Your task to perform on an android device: toggle improve location accuracy Image 0: 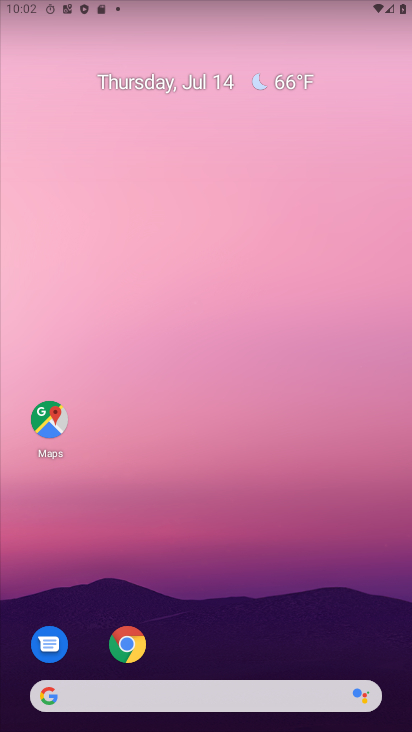
Step 0: drag from (258, 599) to (213, 289)
Your task to perform on an android device: toggle improve location accuracy Image 1: 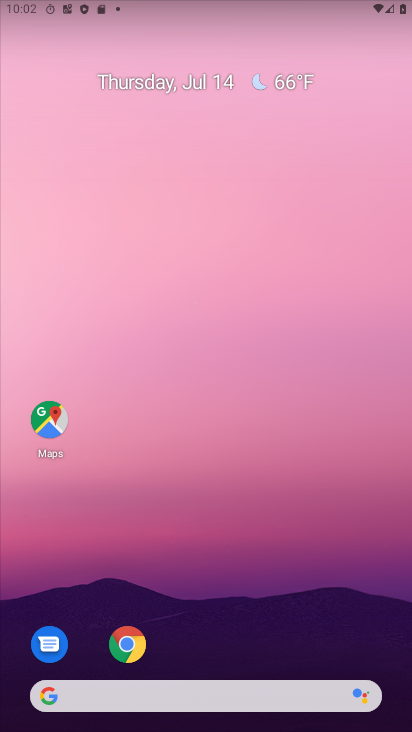
Step 1: drag from (270, 634) to (243, 168)
Your task to perform on an android device: toggle improve location accuracy Image 2: 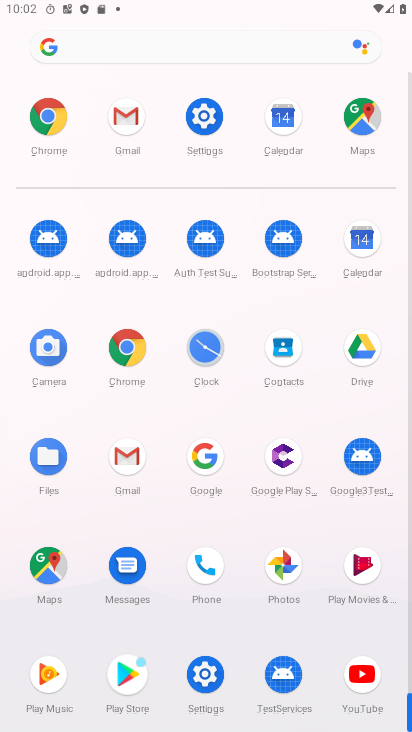
Step 2: click (202, 133)
Your task to perform on an android device: toggle improve location accuracy Image 3: 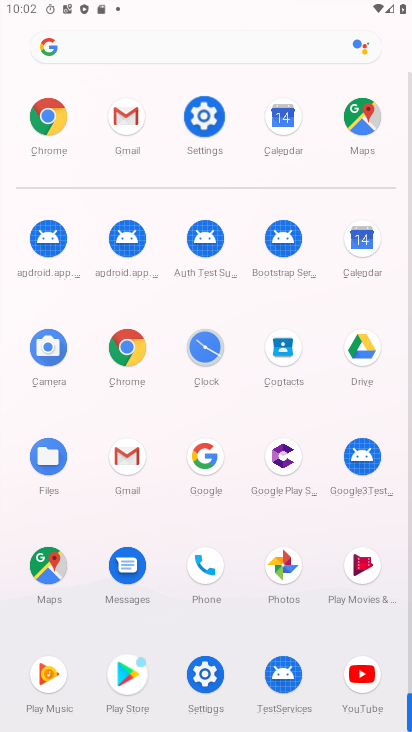
Step 3: click (203, 131)
Your task to perform on an android device: toggle improve location accuracy Image 4: 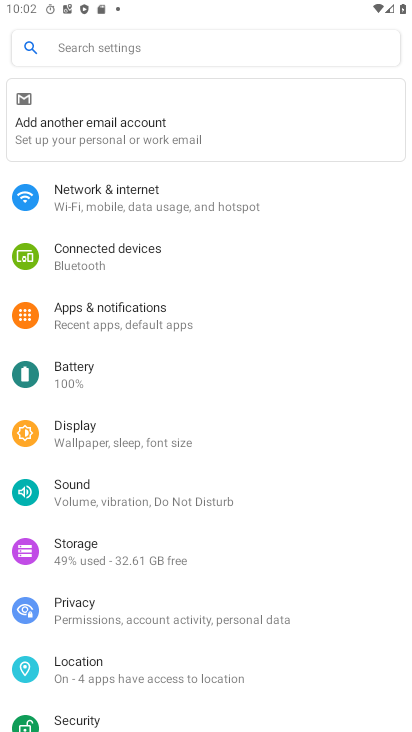
Step 4: click (96, 662)
Your task to perform on an android device: toggle improve location accuracy Image 5: 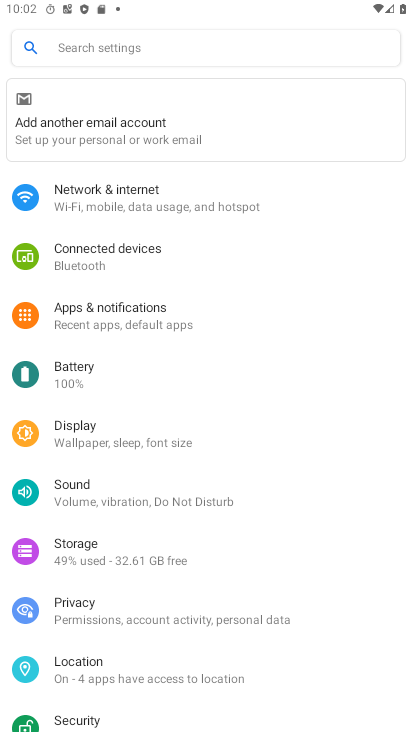
Step 5: click (93, 658)
Your task to perform on an android device: toggle improve location accuracy Image 6: 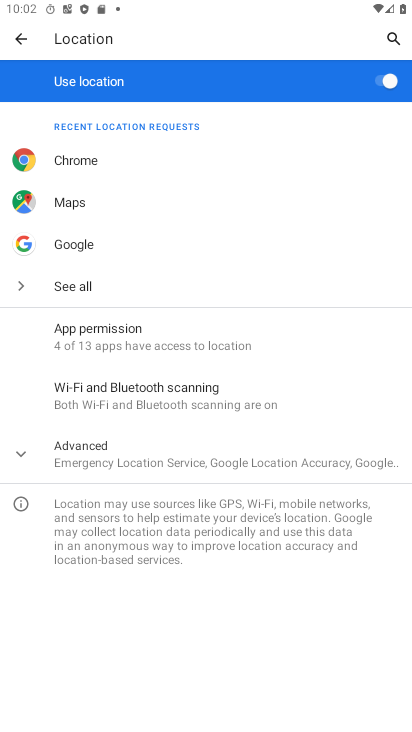
Step 6: click (96, 454)
Your task to perform on an android device: toggle improve location accuracy Image 7: 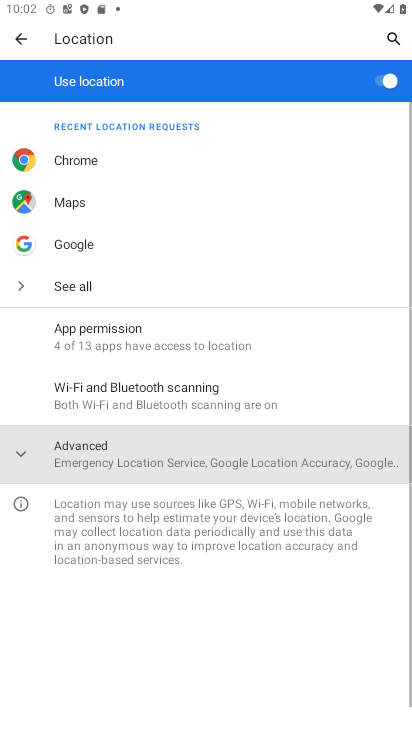
Step 7: click (96, 453)
Your task to perform on an android device: toggle improve location accuracy Image 8: 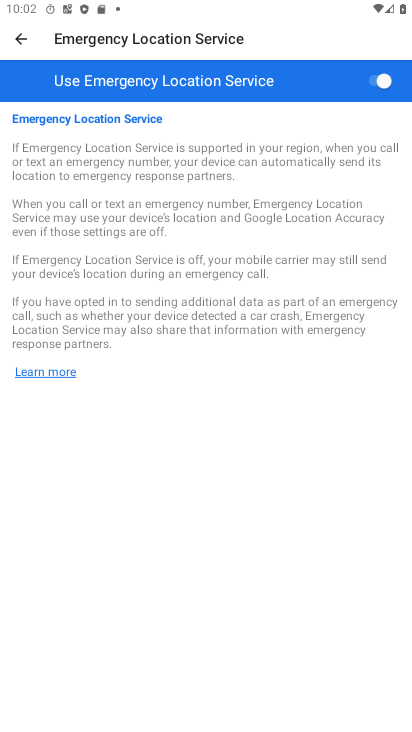
Step 8: click (13, 21)
Your task to perform on an android device: toggle improve location accuracy Image 9: 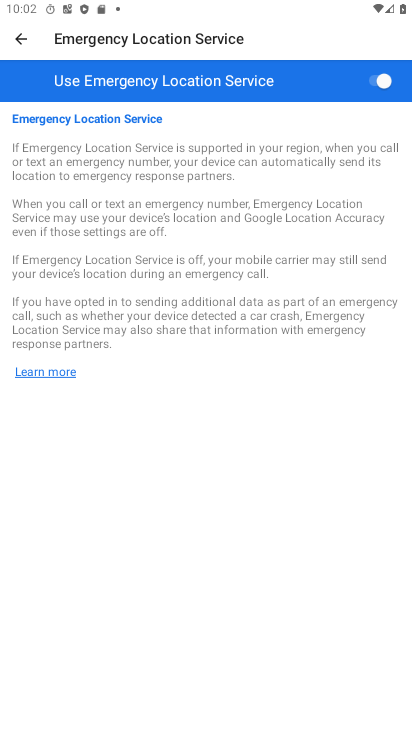
Step 9: click (22, 47)
Your task to perform on an android device: toggle improve location accuracy Image 10: 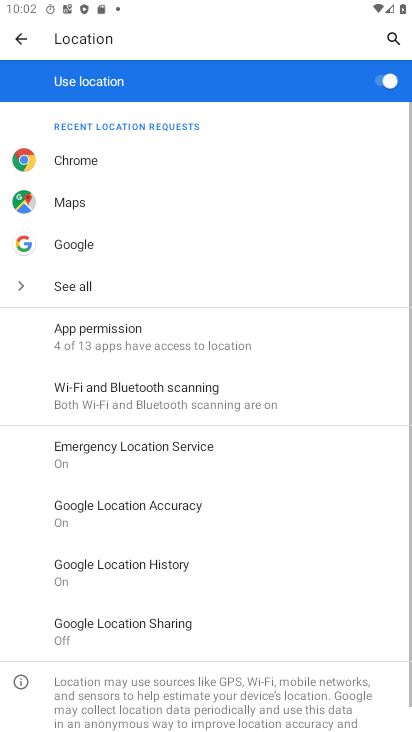
Step 10: click (131, 505)
Your task to perform on an android device: toggle improve location accuracy Image 11: 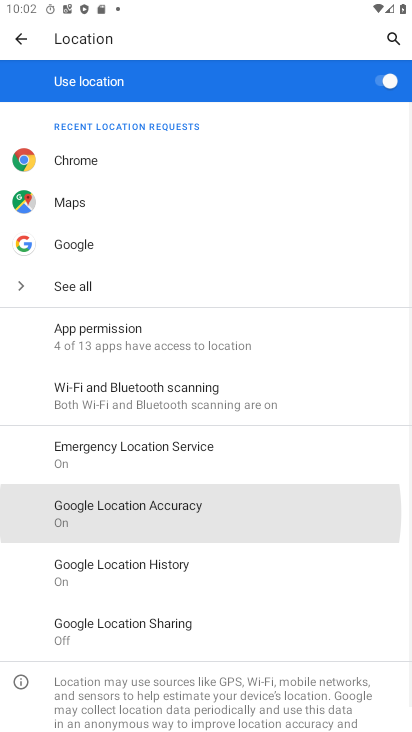
Step 11: click (135, 500)
Your task to perform on an android device: toggle improve location accuracy Image 12: 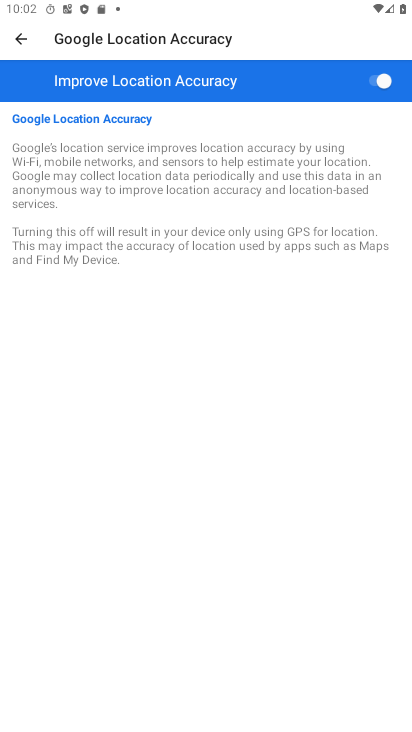
Step 12: click (385, 75)
Your task to perform on an android device: toggle improve location accuracy Image 13: 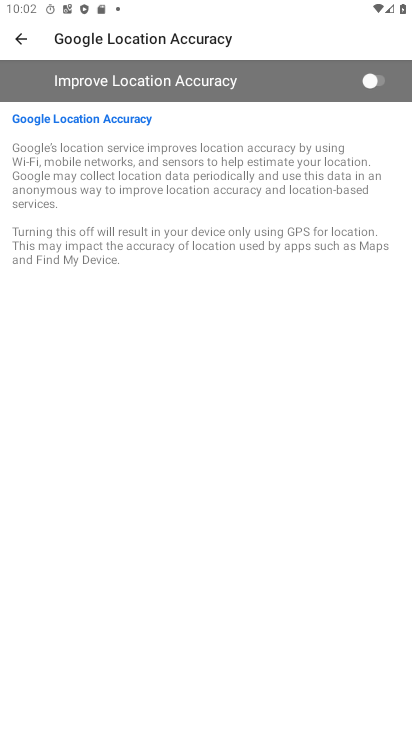
Step 13: task complete